Your task to perform on an android device: Open calendar and show me the second week of next month Image 0: 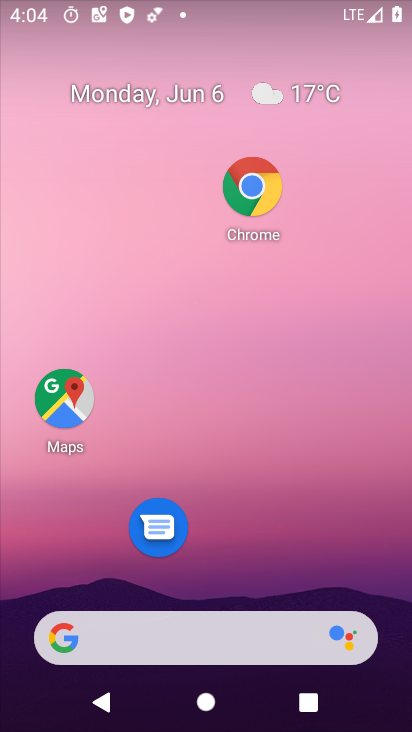
Step 0: drag from (263, 513) to (234, 264)
Your task to perform on an android device: Open calendar and show me the second week of next month Image 1: 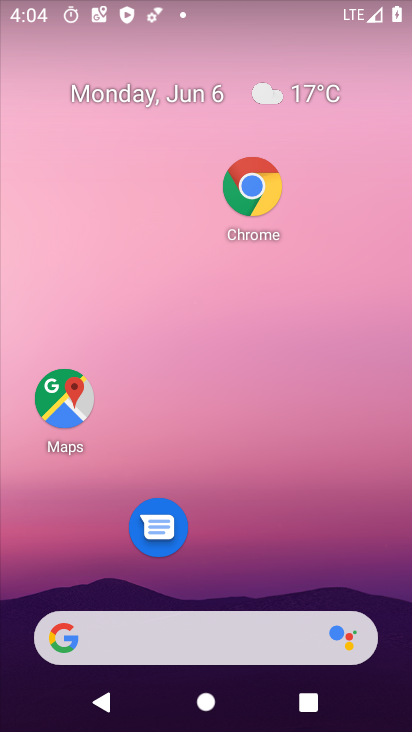
Step 1: drag from (241, 600) to (198, 129)
Your task to perform on an android device: Open calendar and show me the second week of next month Image 2: 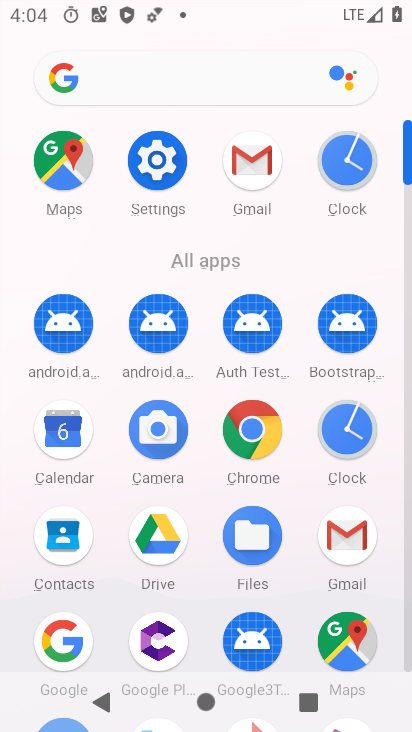
Step 2: click (64, 443)
Your task to perform on an android device: Open calendar and show me the second week of next month Image 3: 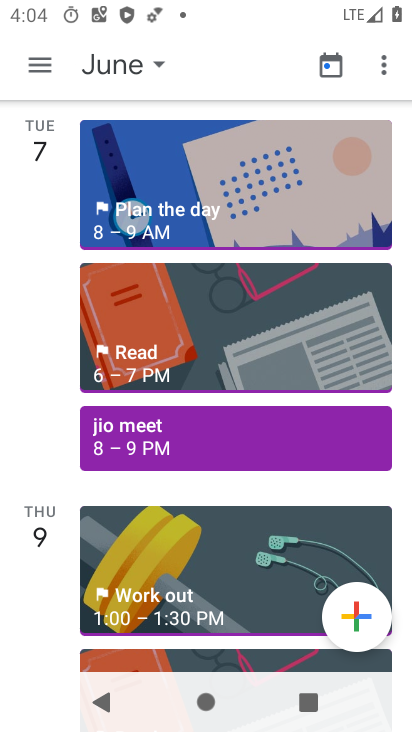
Step 3: click (119, 70)
Your task to perform on an android device: Open calendar and show me the second week of next month Image 4: 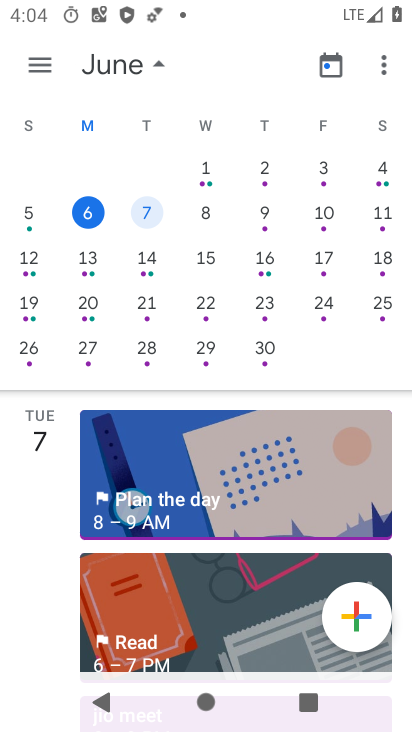
Step 4: drag from (373, 317) to (12, 319)
Your task to perform on an android device: Open calendar and show me the second week of next month Image 5: 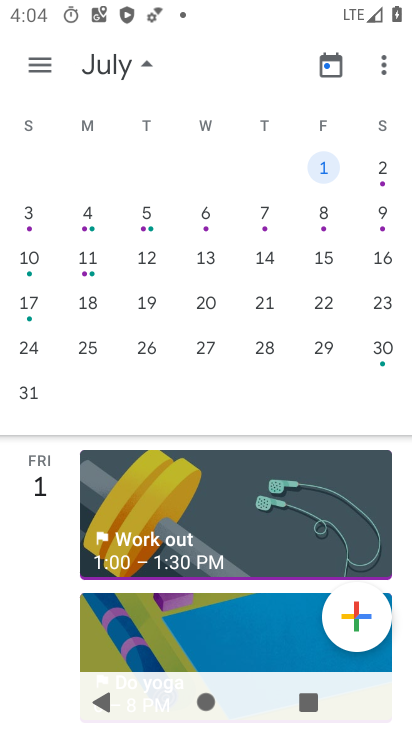
Step 5: click (30, 216)
Your task to perform on an android device: Open calendar and show me the second week of next month Image 6: 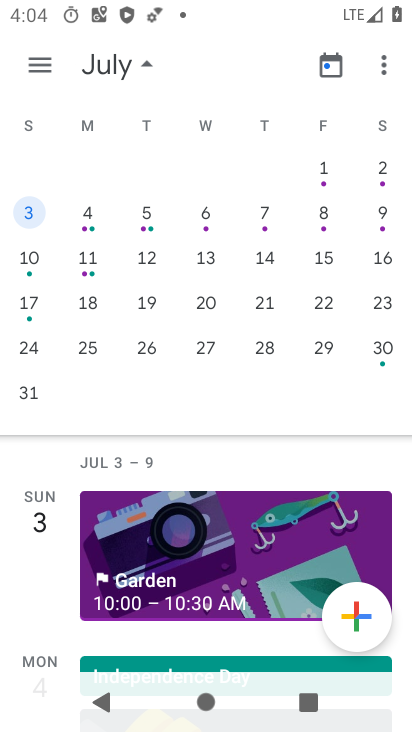
Step 6: task complete